Your task to perform on an android device: add a contact Image 0: 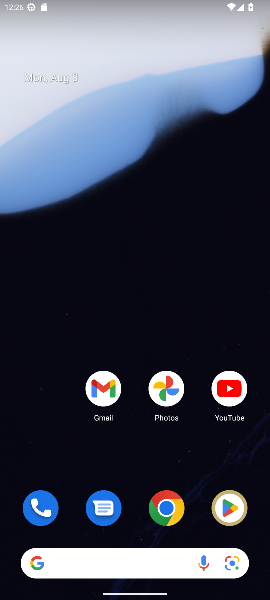
Step 0: press home button
Your task to perform on an android device: add a contact Image 1: 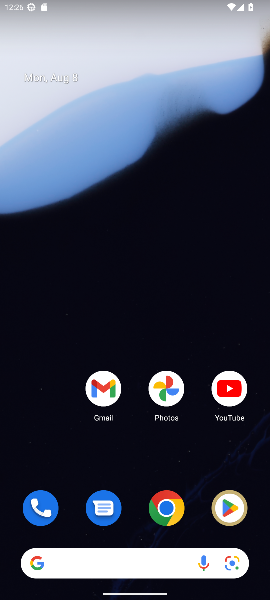
Step 1: drag from (184, 473) to (161, 180)
Your task to perform on an android device: add a contact Image 2: 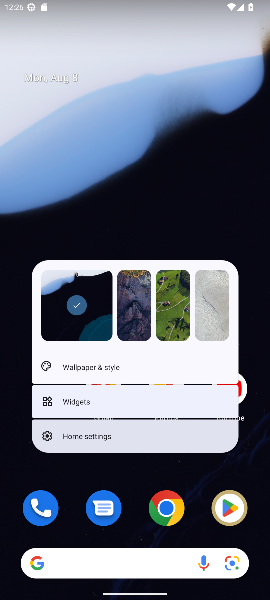
Step 2: click (160, 183)
Your task to perform on an android device: add a contact Image 3: 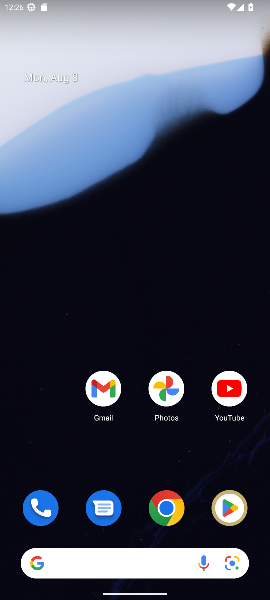
Step 3: drag from (204, 352) to (137, 87)
Your task to perform on an android device: add a contact Image 4: 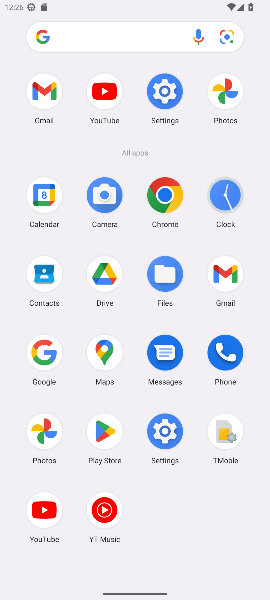
Step 4: click (45, 272)
Your task to perform on an android device: add a contact Image 5: 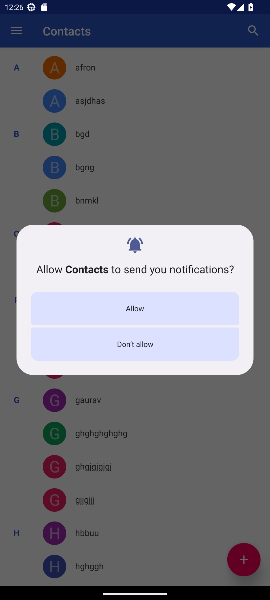
Step 5: click (177, 347)
Your task to perform on an android device: add a contact Image 6: 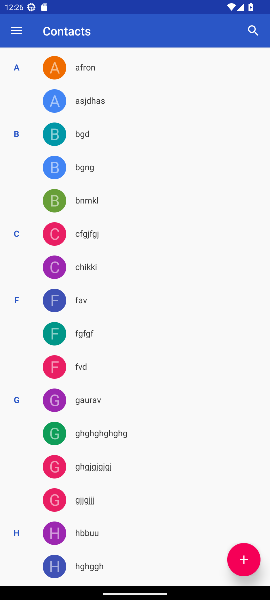
Step 6: click (250, 555)
Your task to perform on an android device: add a contact Image 7: 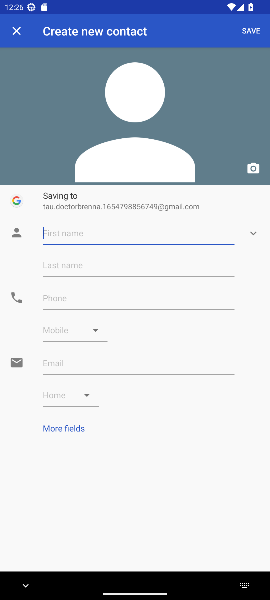
Step 7: type "123"
Your task to perform on an android device: add a contact Image 8: 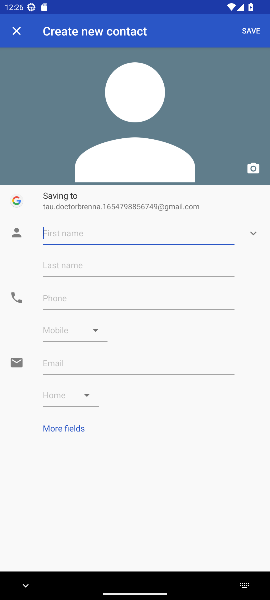
Step 8: click (127, 298)
Your task to perform on an android device: add a contact Image 9: 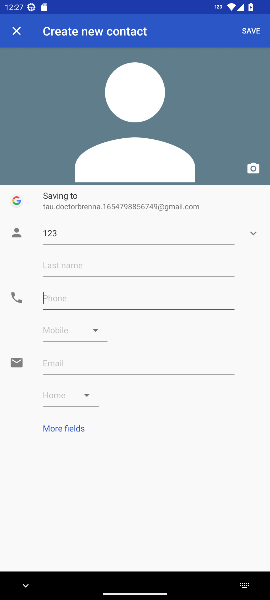
Step 9: type "3211231234"
Your task to perform on an android device: add a contact Image 10: 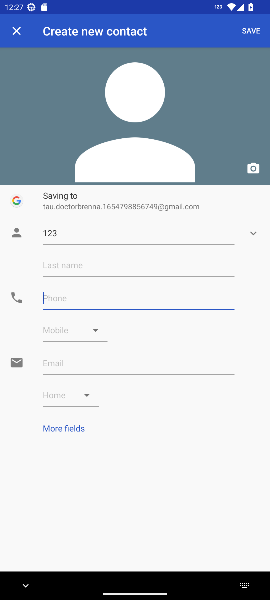
Step 10: click (250, 28)
Your task to perform on an android device: add a contact Image 11: 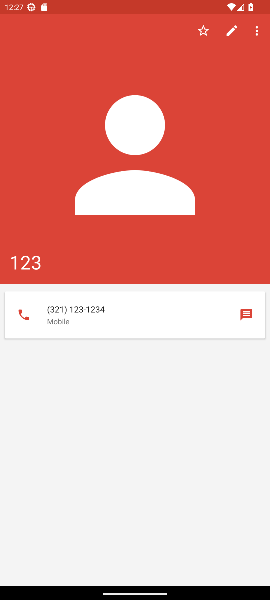
Step 11: task complete